Your task to perform on an android device: toggle javascript in the chrome app Image 0: 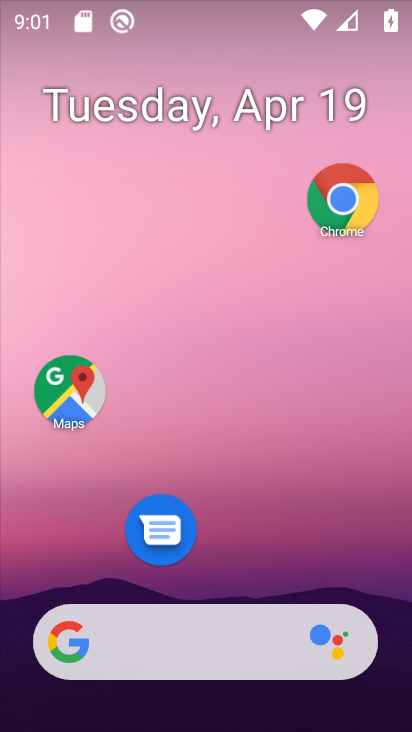
Step 0: drag from (232, 487) to (292, 84)
Your task to perform on an android device: toggle javascript in the chrome app Image 1: 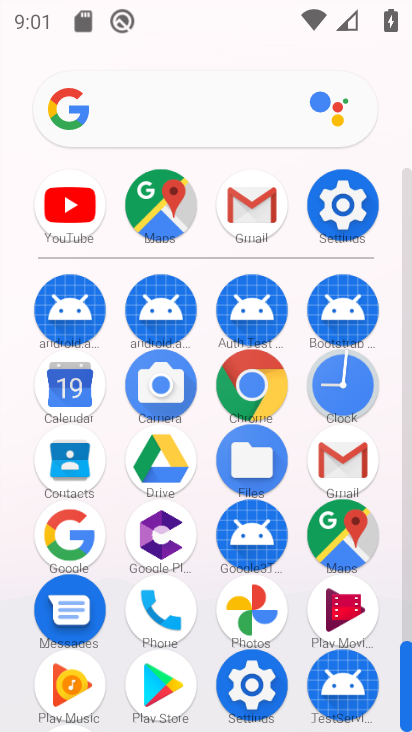
Step 1: click (252, 385)
Your task to perform on an android device: toggle javascript in the chrome app Image 2: 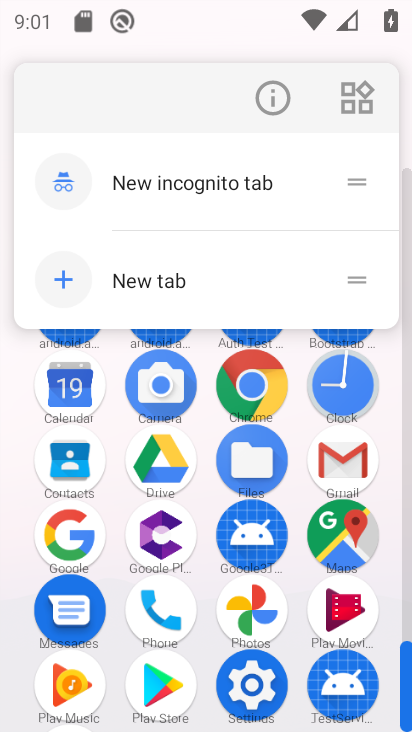
Step 2: click (272, 100)
Your task to perform on an android device: toggle javascript in the chrome app Image 3: 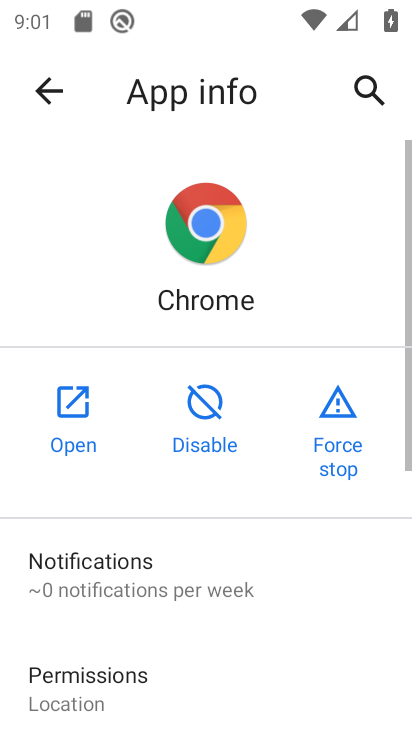
Step 3: click (72, 395)
Your task to perform on an android device: toggle javascript in the chrome app Image 4: 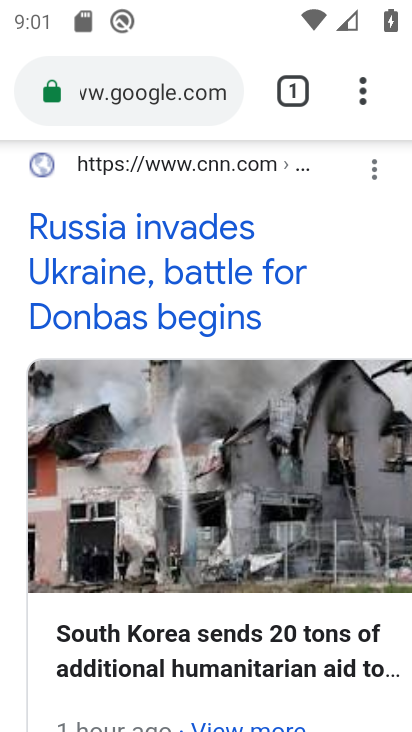
Step 4: drag from (354, 94) to (115, 547)
Your task to perform on an android device: toggle javascript in the chrome app Image 5: 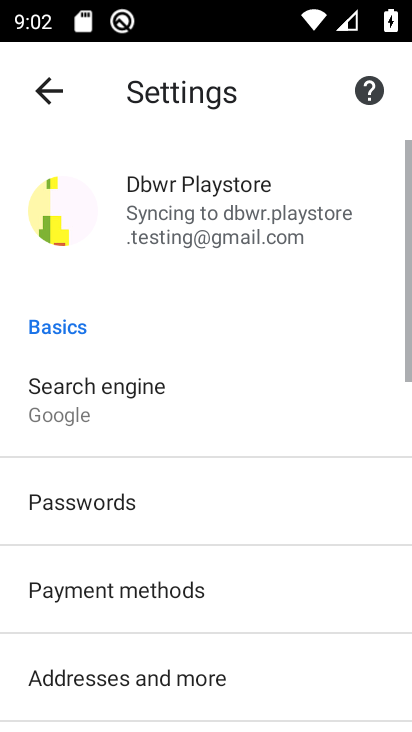
Step 5: drag from (159, 531) to (290, 7)
Your task to perform on an android device: toggle javascript in the chrome app Image 6: 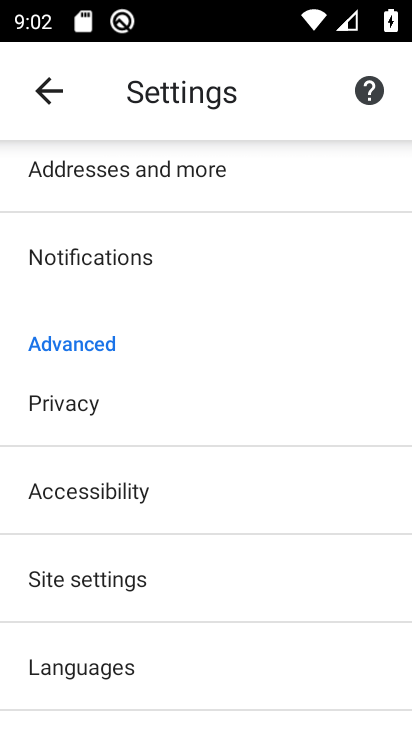
Step 6: drag from (163, 640) to (259, 244)
Your task to perform on an android device: toggle javascript in the chrome app Image 7: 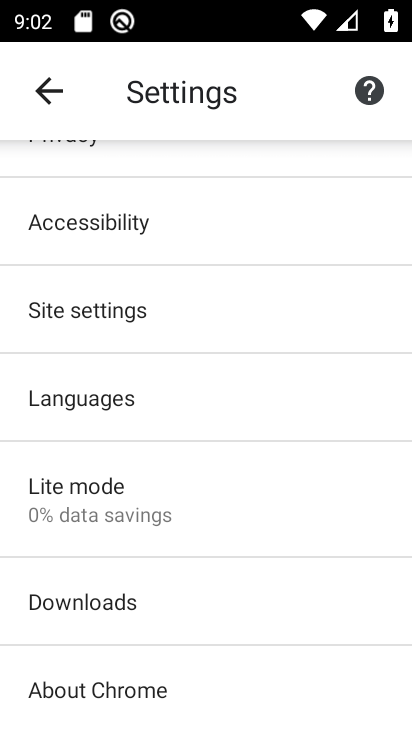
Step 7: click (150, 312)
Your task to perform on an android device: toggle javascript in the chrome app Image 8: 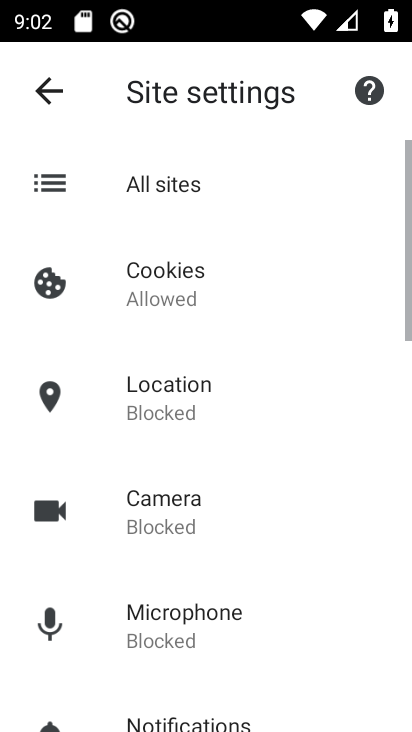
Step 8: drag from (200, 621) to (280, 197)
Your task to perform on an android device: toggle javascript in the chrome app Image 9: 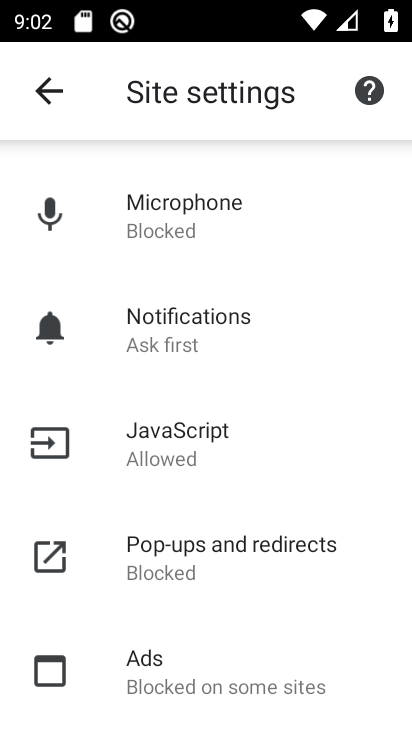
Step 9: click (209, 424)
Your task to perform on an android device: toggle javascript in the chrome app Image 10: 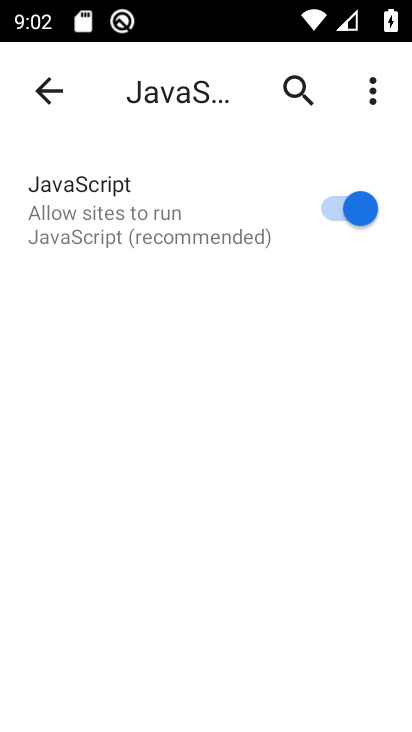
Step 10: click (333, 220)
Your task to perform on an android device: toggle javascript in the chrome app Image 11: 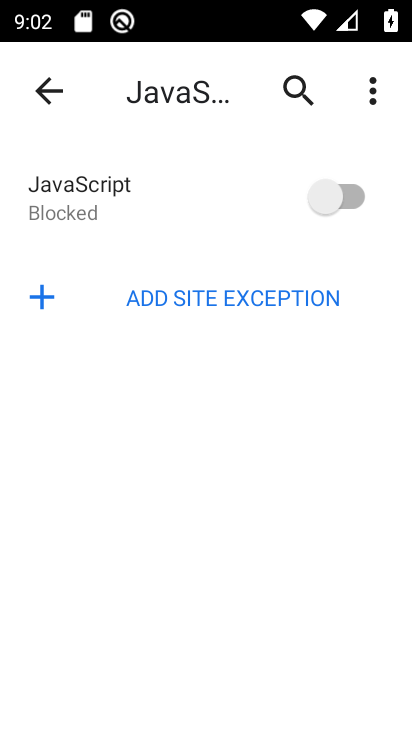
Step 11: task complete